Your task to perform on an android device: open chrome and create a bookmark for the current page Image 0: 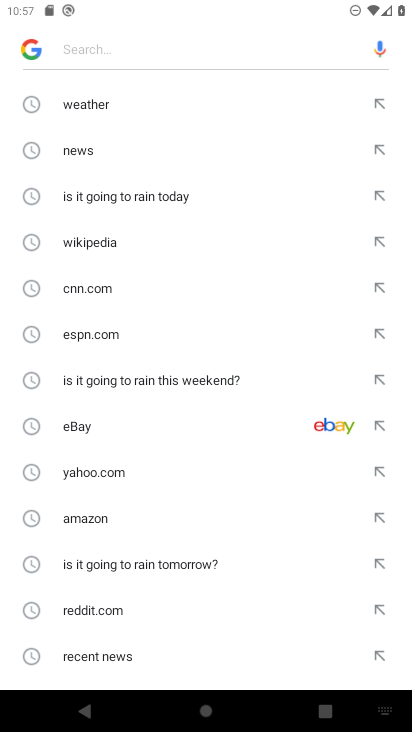
Step 0: press back button
Your task to perform on an android device: open chrome and create a bookmark for the current page Image 1: 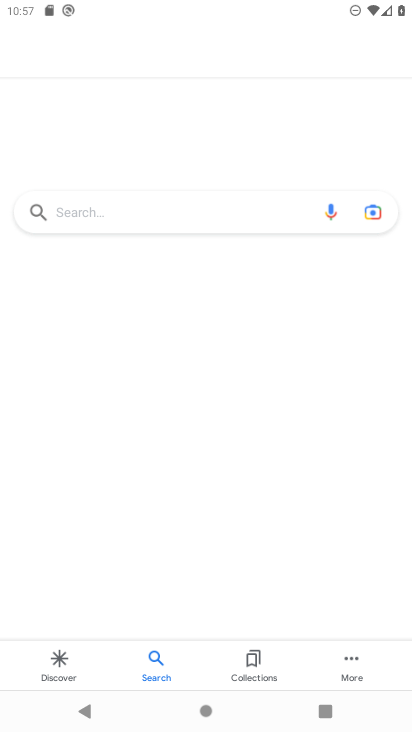
Step 1: press back button
Your task to perform on an android device: open chrome and create a bookmark for the current page Image 2: 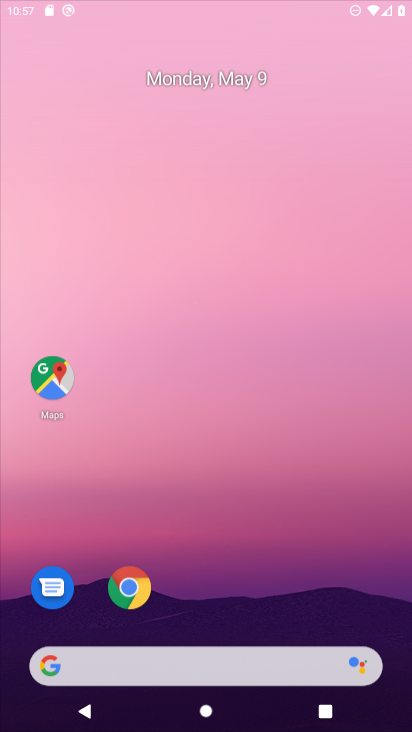
Step 2: press back button
Your task to perform on an android device: open chrome and create a bookmark for the current page Image 3: 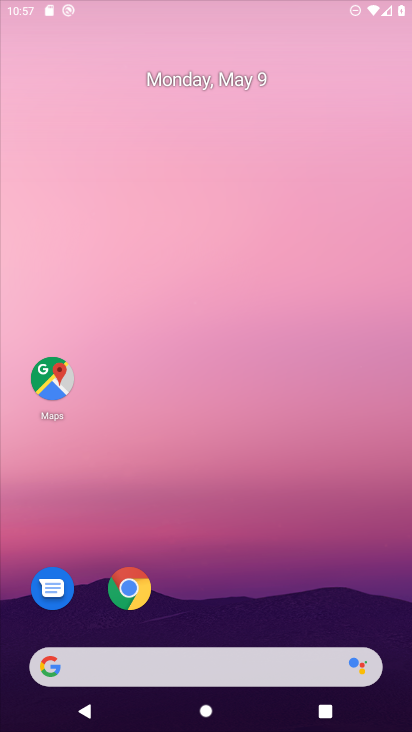
Step 3: press back button
Your task to perform on an android device: open chrome and create a bookmark for the current page Image 4: 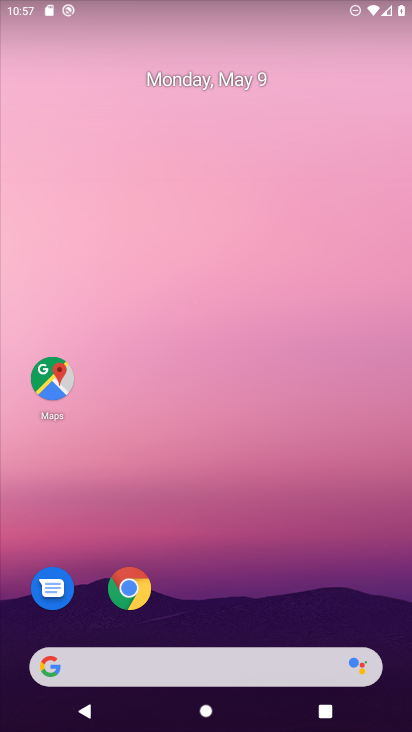
Step 4: click (143, 596)
Your task to perform on an android device: open chrome and create a bookmark for the current page Image 5: 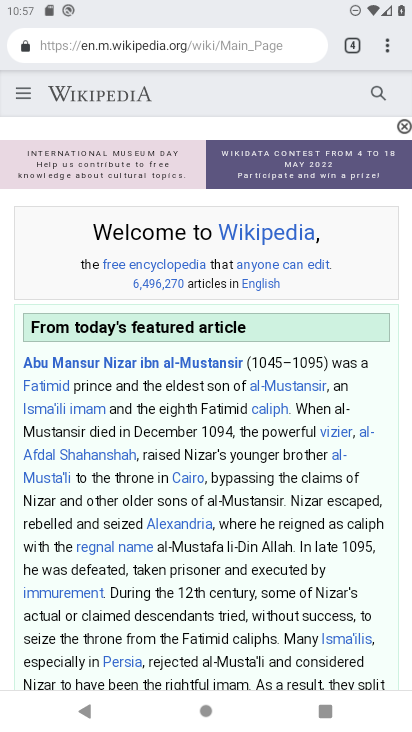
Step 5: click (385, 51)
Your task to perform on an android device: open chrome and create a bookmark for the current page Image 6: 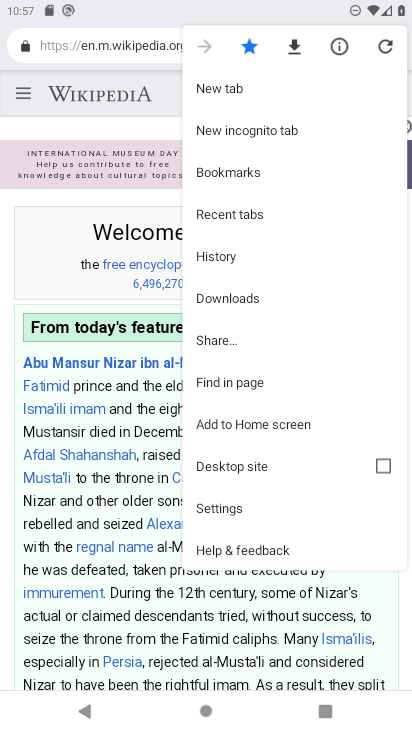
Step 6: click (138, 125)
Your task to perform on an android device: open chrome and create a bookmark for the current page Image 7: 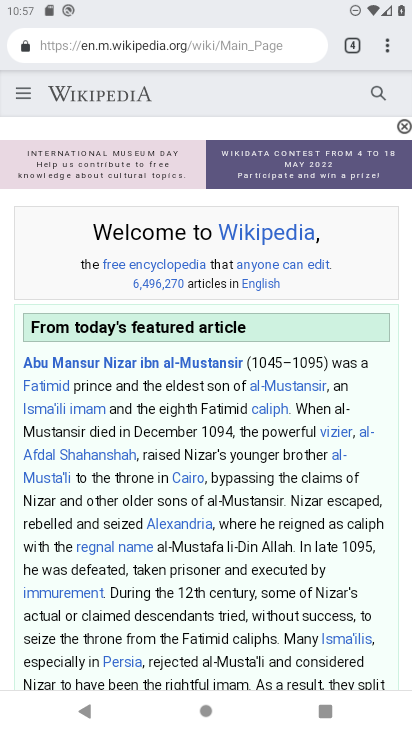
Step 7: click (270, 64)
Your task to perform on an android device: open chrome and create a bookmark for the current page Image 8: 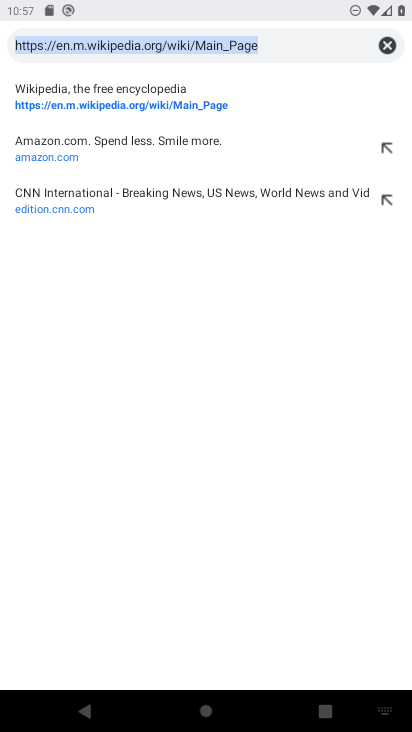
Step 8: click (206, 190)
Your task to perform on an android device: open chrome and create a bookmark for the current page Image 9: 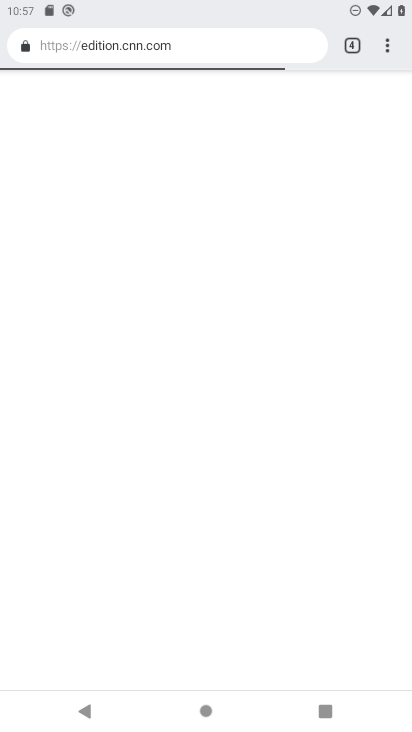
Step 9: click (402, 37)
Your task to perform on an android device: open chrome and create a bookmark for the current page Image 10: 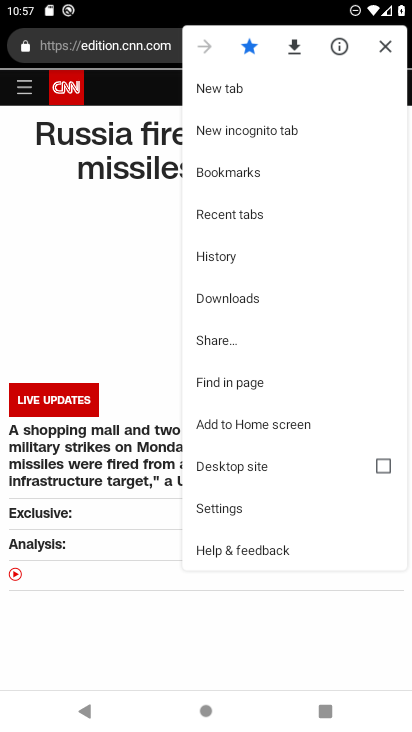
Step 10: task complete